Your task to perform on an android device: search for starred emails in the gmail app Image 0: 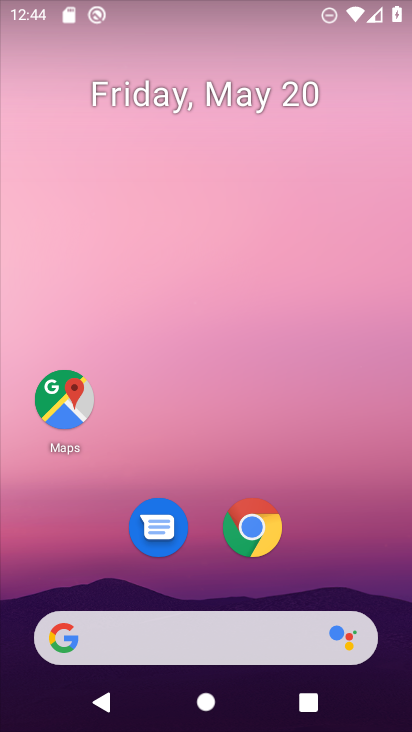
Step 0: drag from (393, 682) to (309, 359)
Your task to perform on an android device: search for starred emails in the gmail app Image 1: 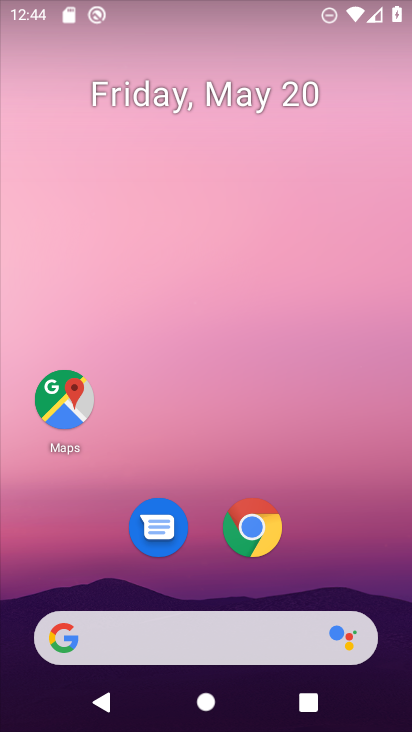
Step 1: drag from (402, 688) to (330, 243)
Your task to perform on an android device: search for starred emails in the gmail app Image 2: 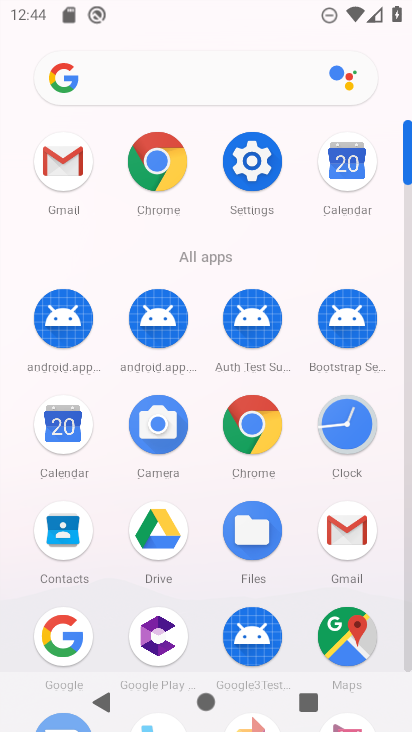
Step 2: click (338, 533)
Your task to perform on an android device: search for starred emails in the gmail app Image 3: 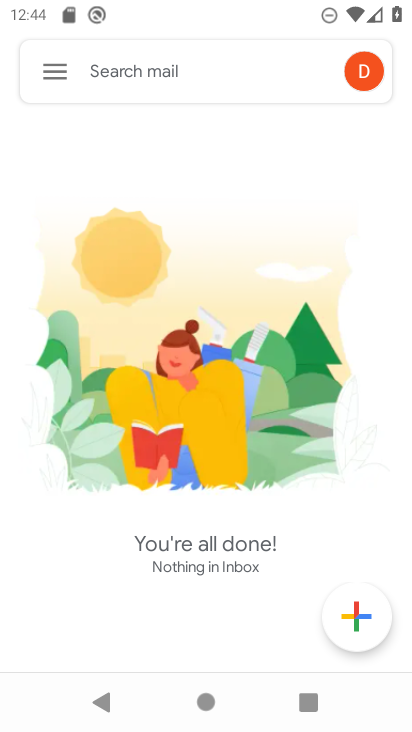
Step 3: click (48, 72)
Your task to perform on an android device: search for starred emails in the gmail app Image 4: 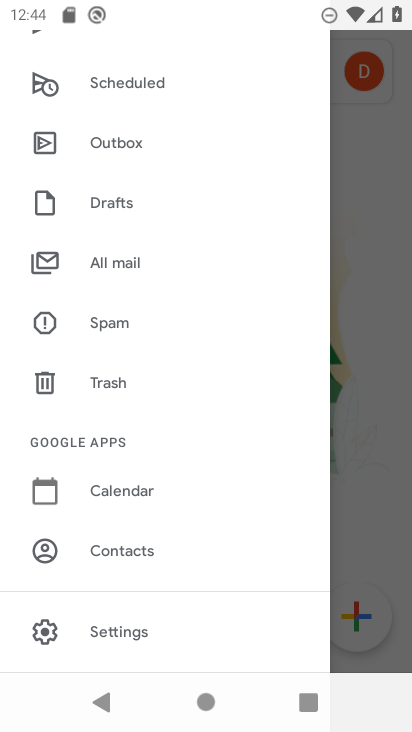
Step 4: drag from (201, 135) to (223, 462)
Your task to perform on an android device: search for starred emails in the gmail app Image 5: 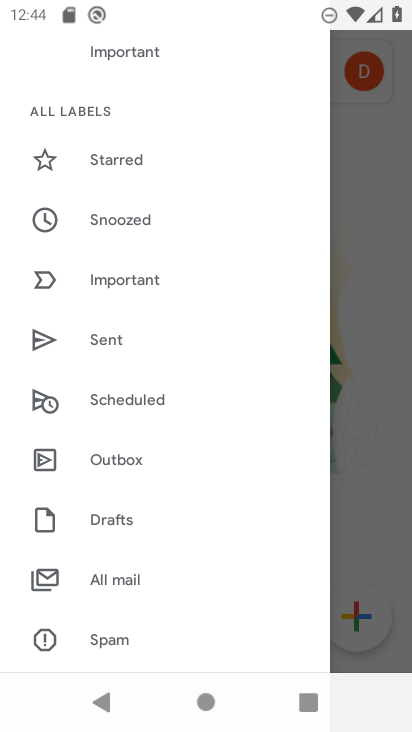
Step 5: click (98, 159)
Your task to perform on an android device: search for starred emails in the gmail app Image 6: 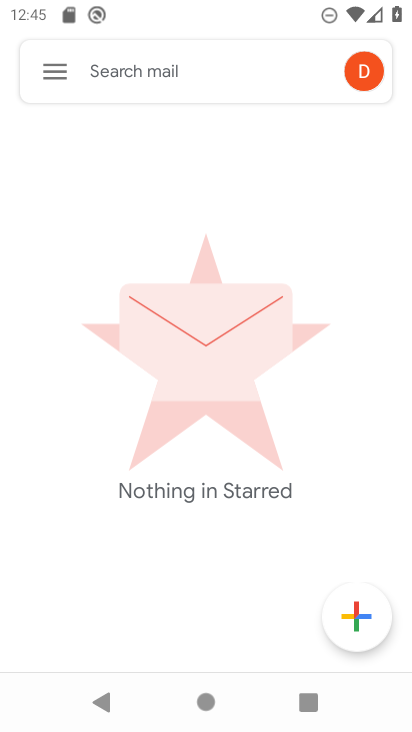
Step 6: task complete